Your task to perform on an android device: Search for "logitech g910" on walmart.com, select the first entry, add it to the cart, then select checkout. Image 0: 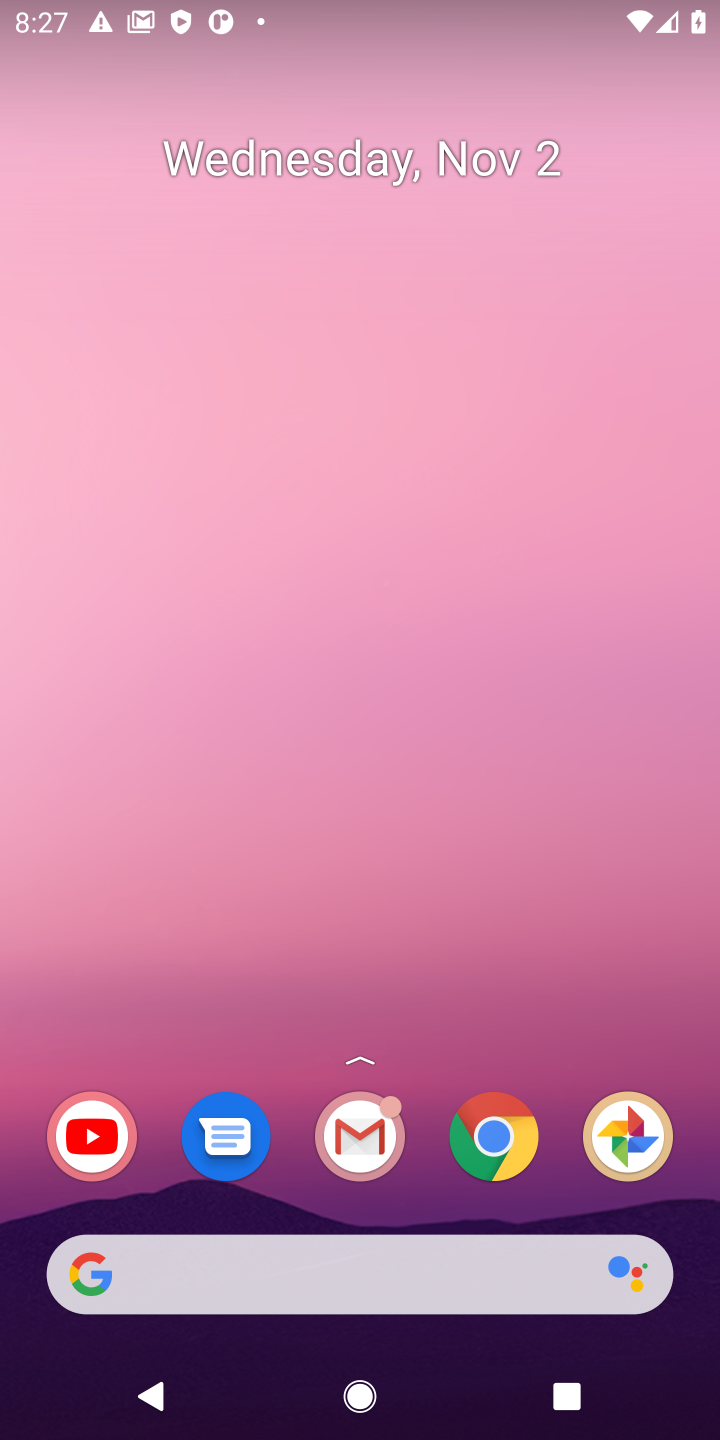
Step 0: drag from (409, 1292) to (373, 189)
Your task to perform on an android device: Search for "logitech g910" on walmart.com, select the first entry, add it to the cart, then select checkout. Image 1: 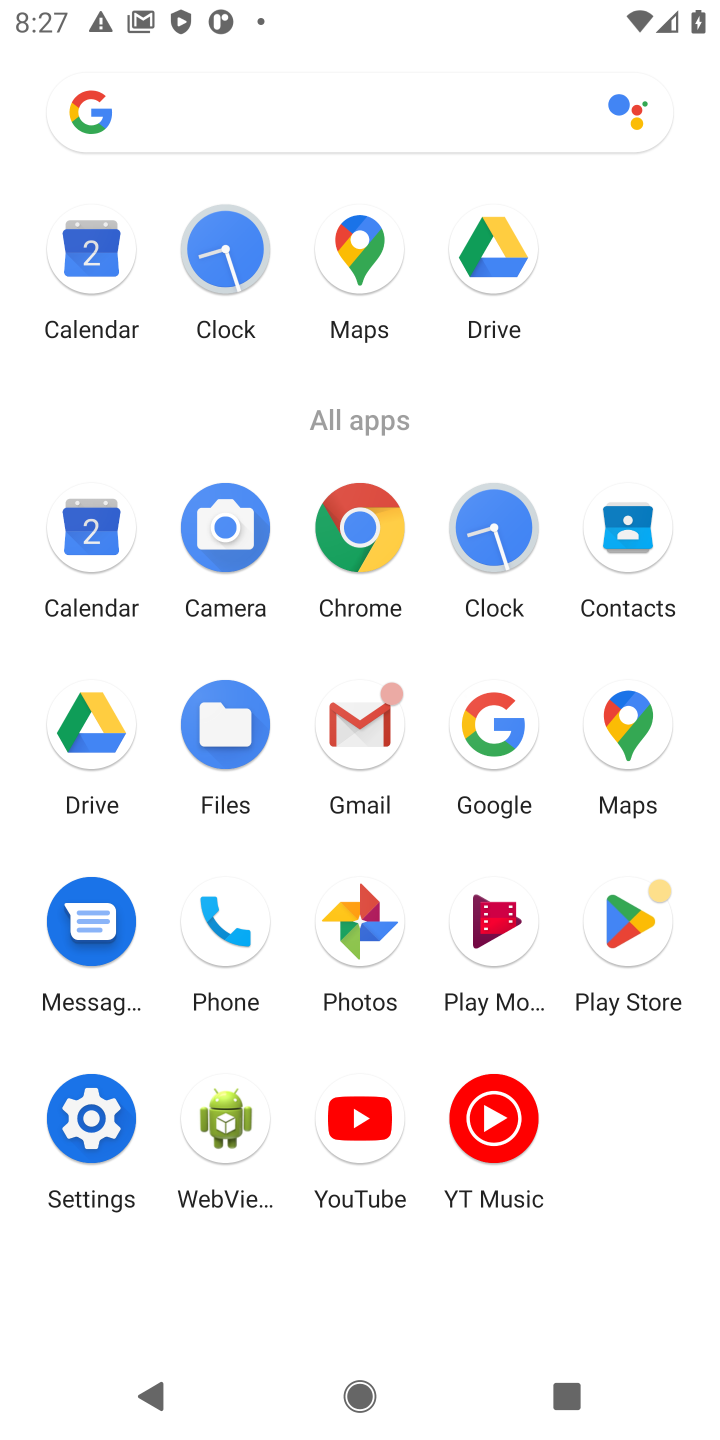
Step 1: click (470, 729)
Your task to perform on an android device: Search for "logitech g910" on walmart.com, select the first entry, add it to the cart, then select checkout. Image 2: 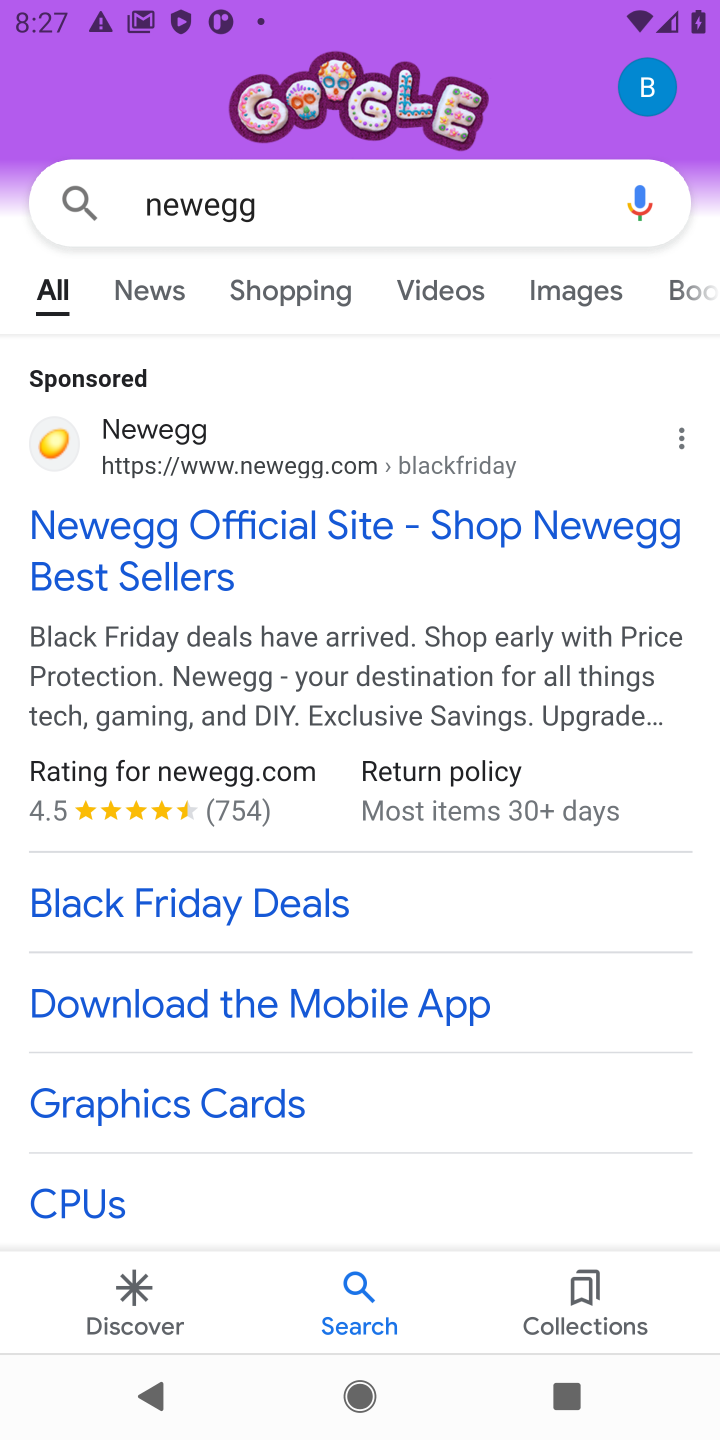
Step 2: click (269, 196)
Your task to perform on an android device: Search for "logitech g910" on walmart.com, select the first entry, add it to the cart, then select checkout. Image 3: 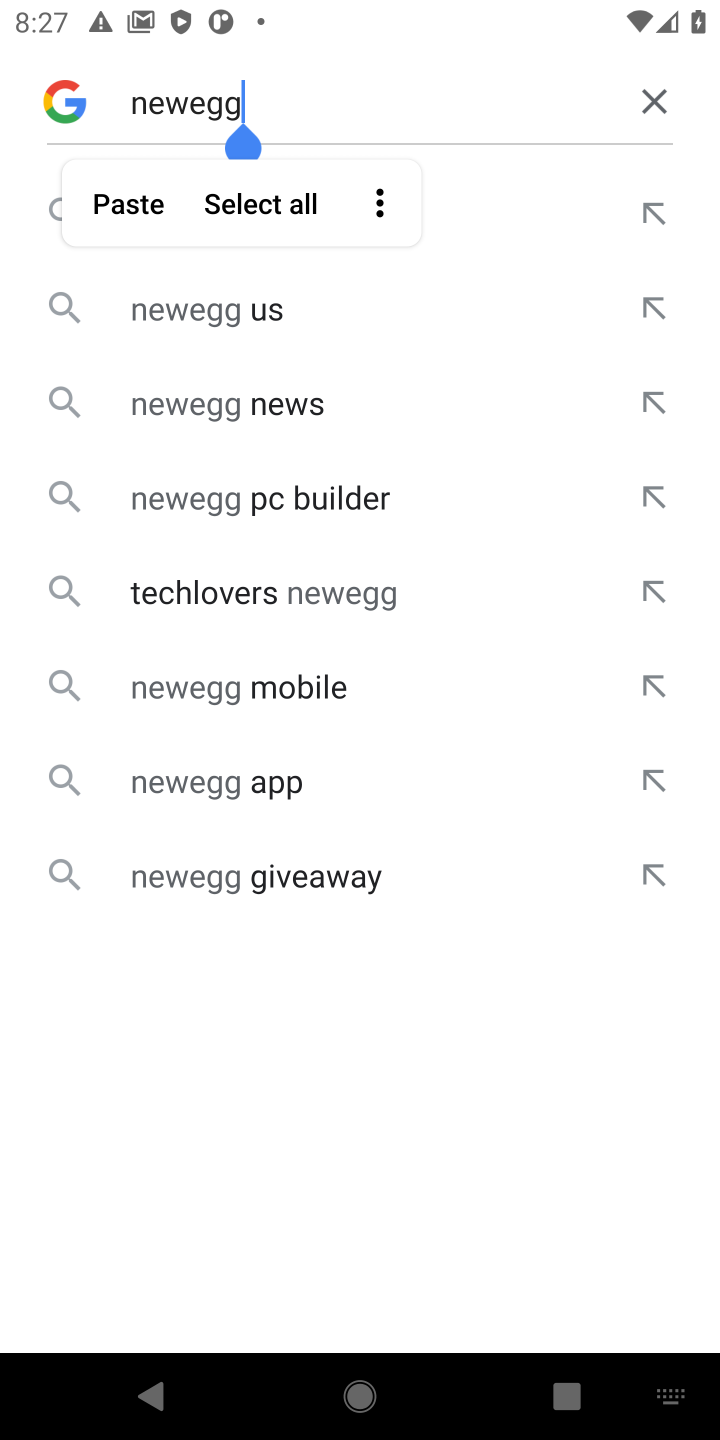
Step 3: click (647, 103)
Your task to perform on an android device: Search for "logitech g910" on walmart.com, select the first entry, add it to the cart, then select checkout. Image 4: 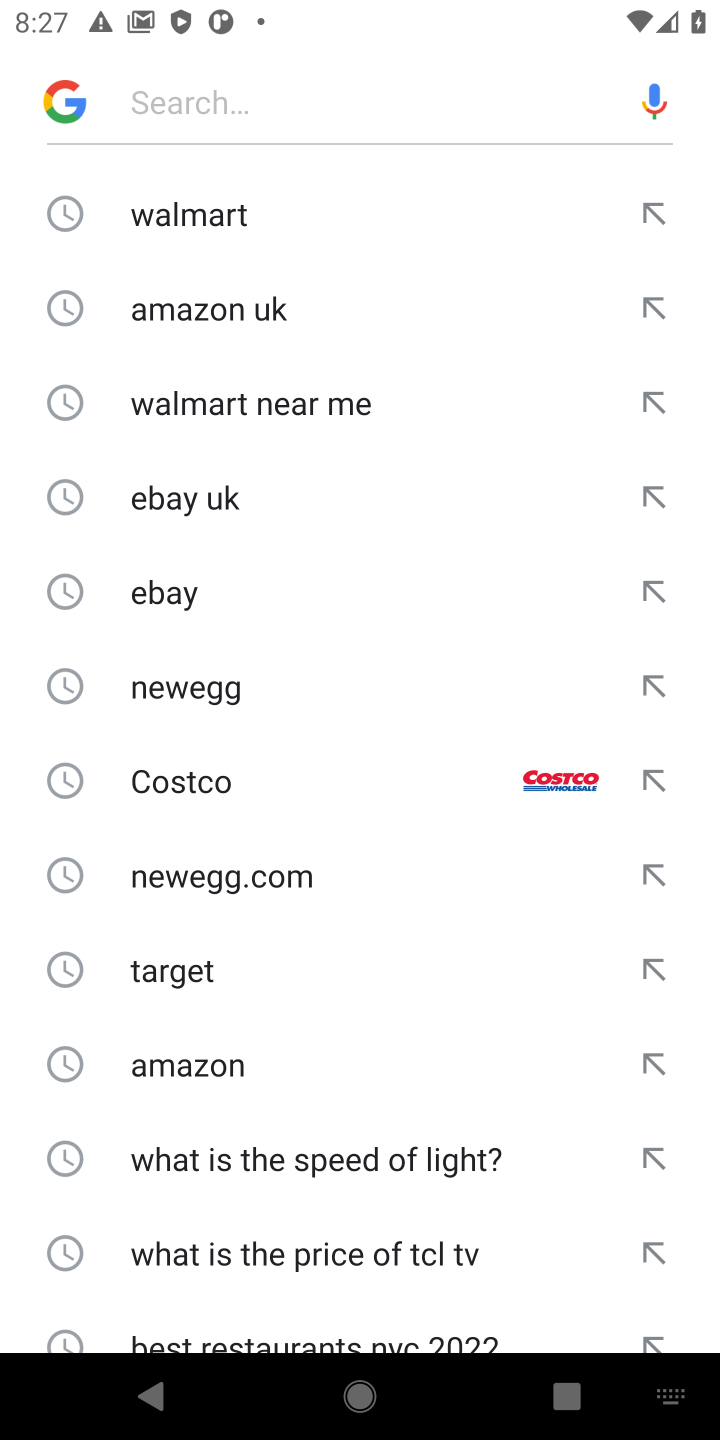
Step 4: click (163, 199)
Your task to perform on an android device: Search for "logitech g910" on walmart.com, select the first entry, add it to the cart, then select checkout. Image 5: 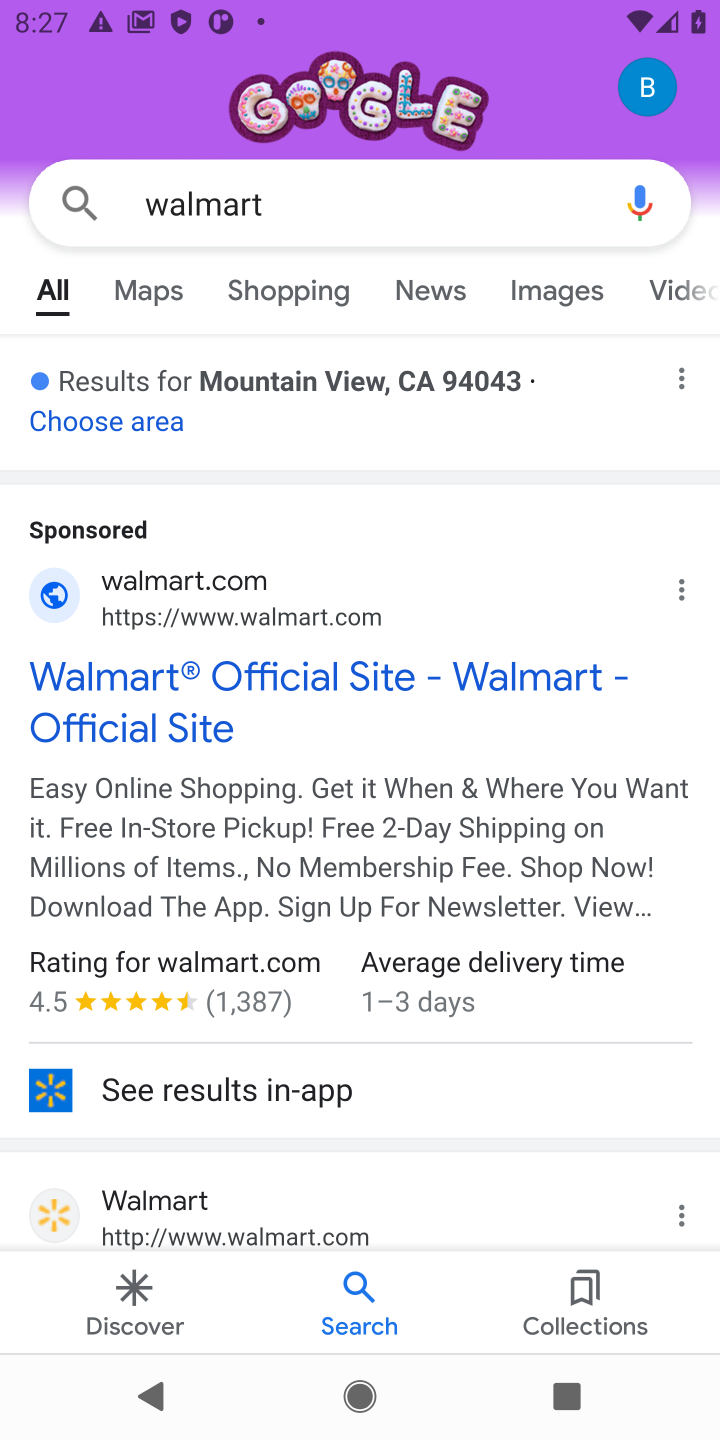
Step 5: click (56, 1213)
Your task to perform on an android device: Search for "logitech g910" on walmart.com, select the first entry, add it to the cart, then select checkout. Image 6: 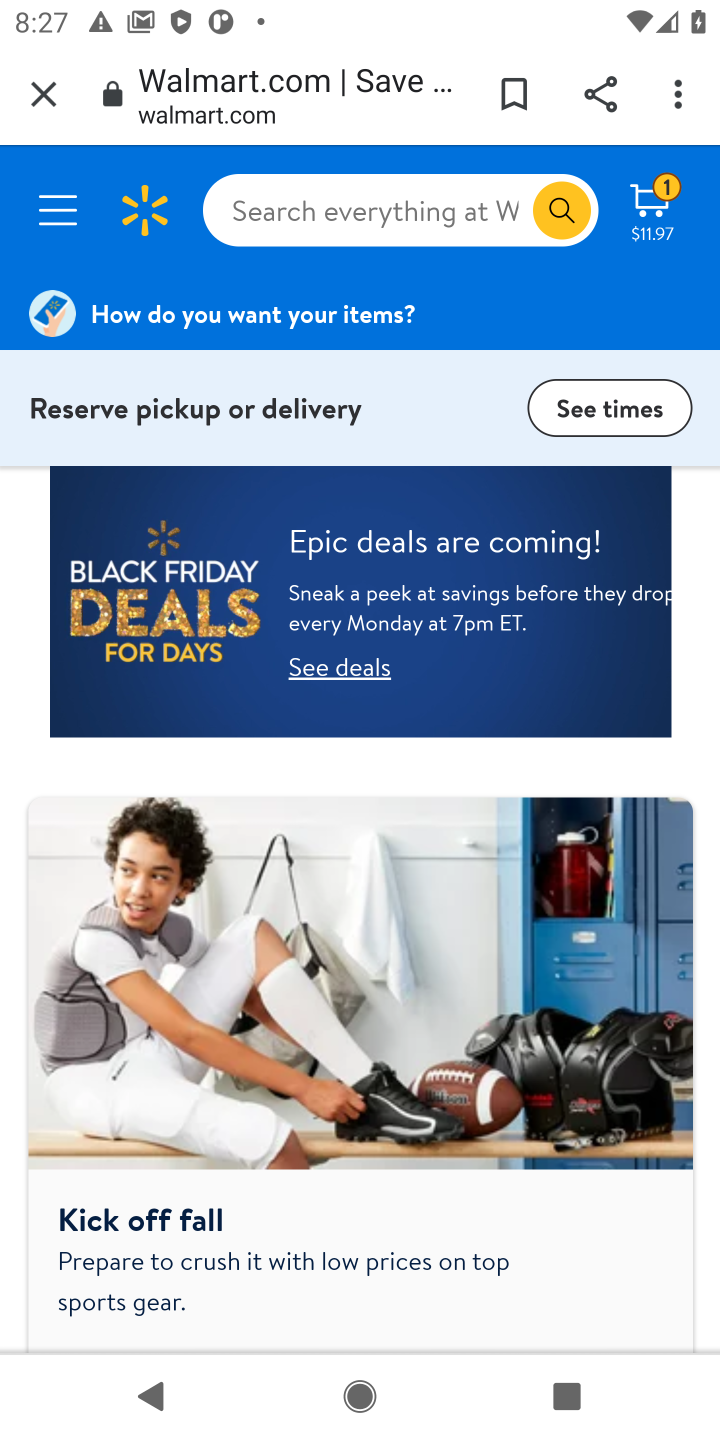
Step 6: click (385, 191)
Your task to perform on an android device: Search for "logitech g910" on walmart.com, select the first entry, add it to the cart, then select checkout. Image 7: 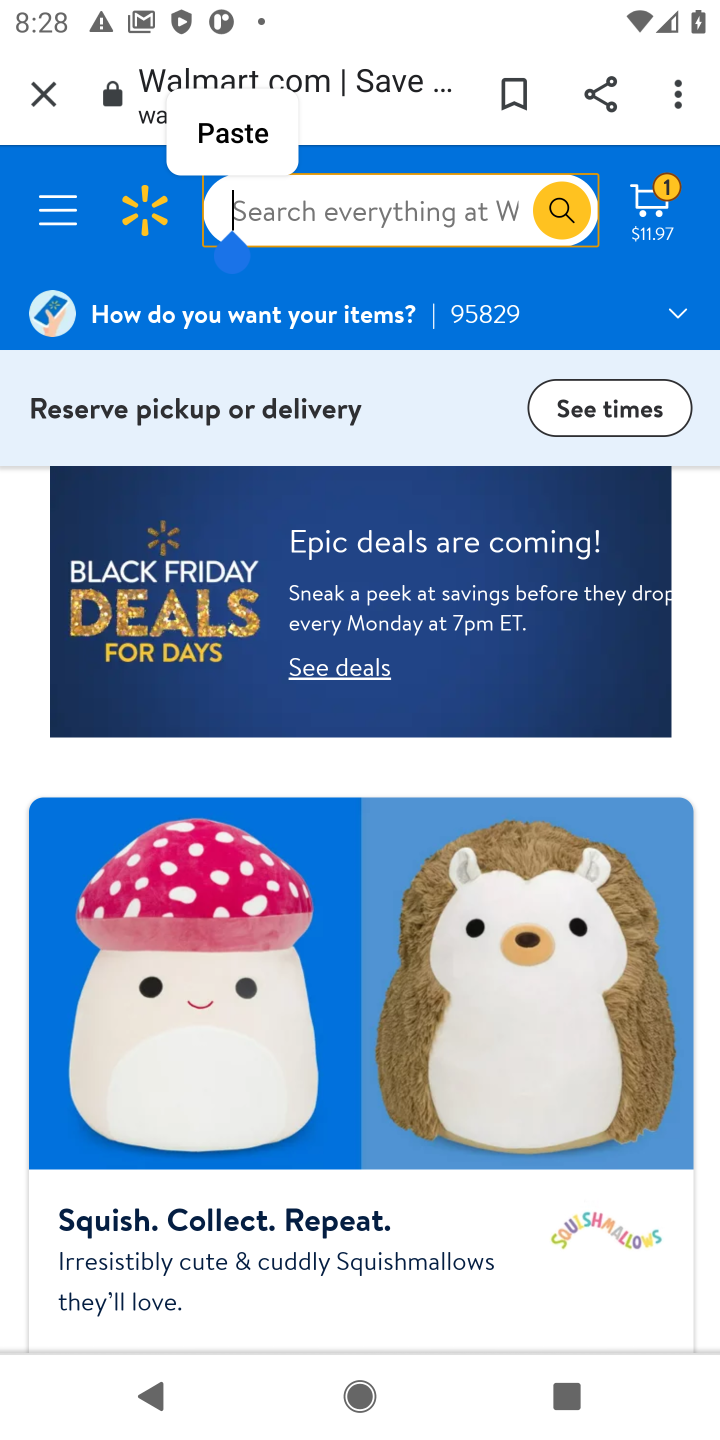
Step 7: click (379, 214)
Your task to perform on an android device: Search for "logitech g910" on walmart.com, select the first entry, add it to the cart, then select checkout. Image 8: 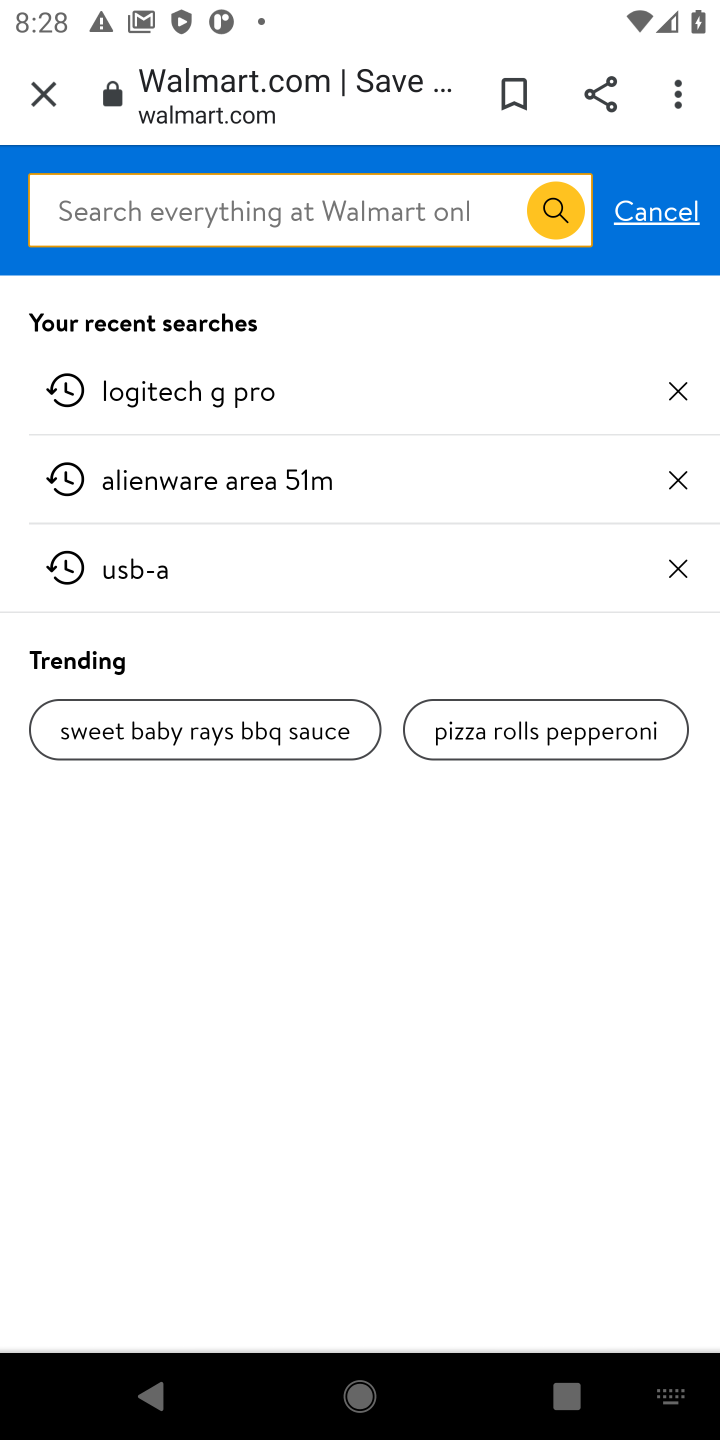
Step 8: type ""logitech g910 "
Your task to perform on an android device: Search for "logitech g910" on walmart.com, select the first entry, add it to the cart, then select checkout. Image 9: 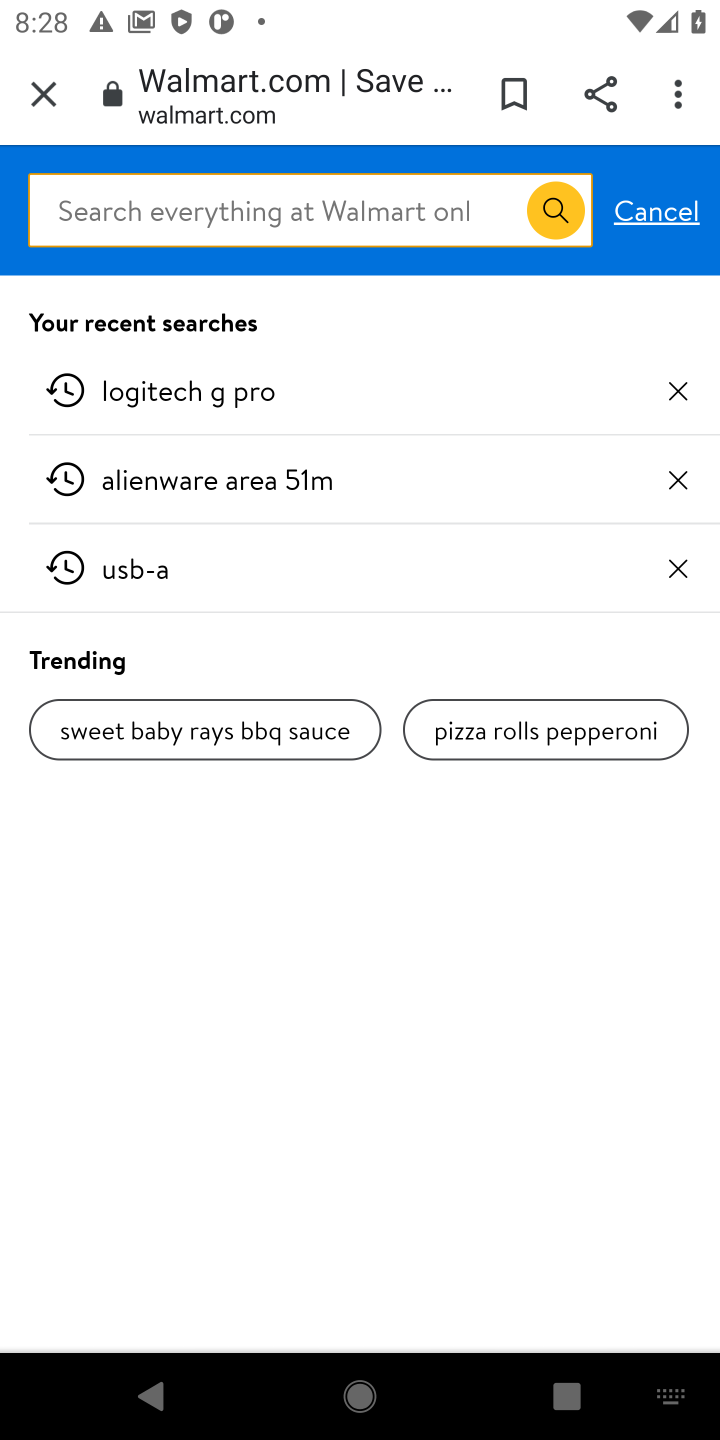
Step 9: click (236, 388)
Your task to perform on an android device: Search for "logitech g910" on walmart.com, select the first entry, add it to the cart, then select checkout. Image 10: 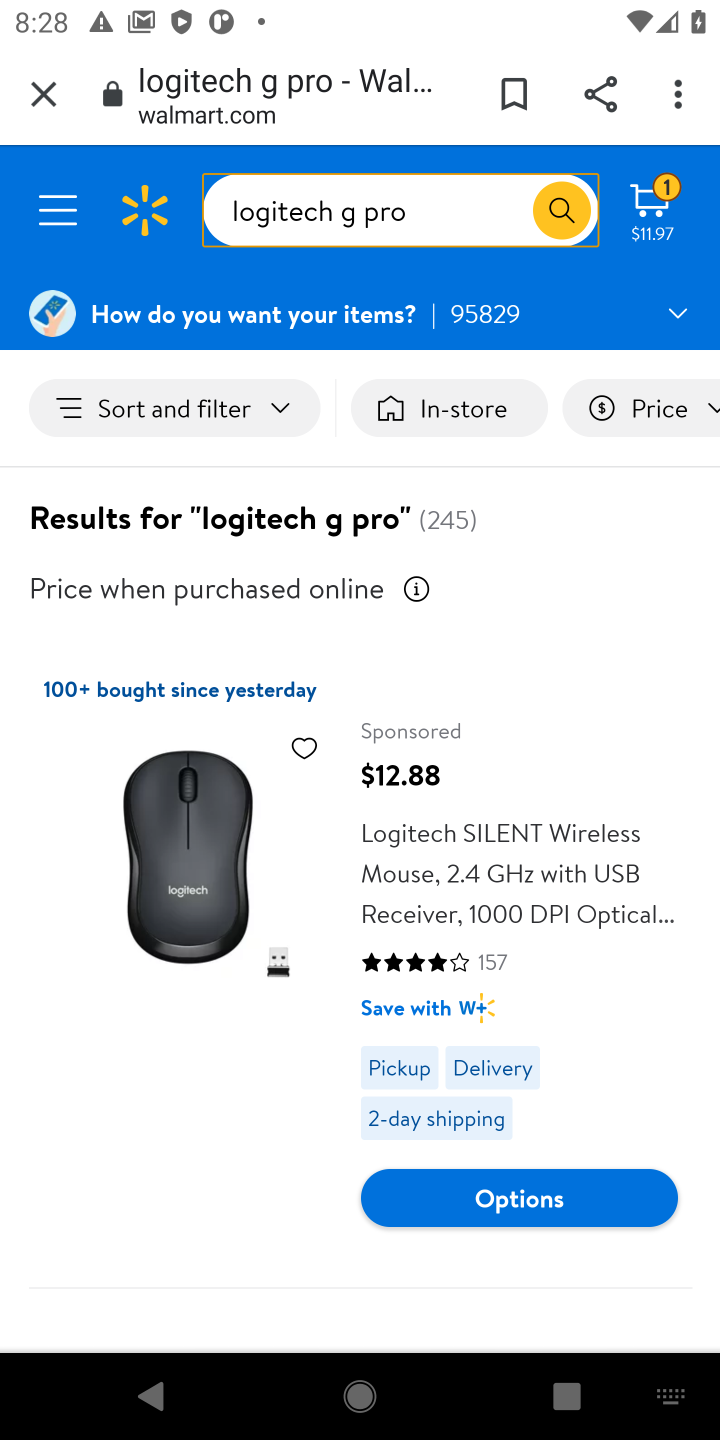
Step 10: click (563, 204)
Your task to perform on an android device: Search for "logitech g910" on walmart.com, select the first entry, add it to the cart, then select checkout. Image 11: 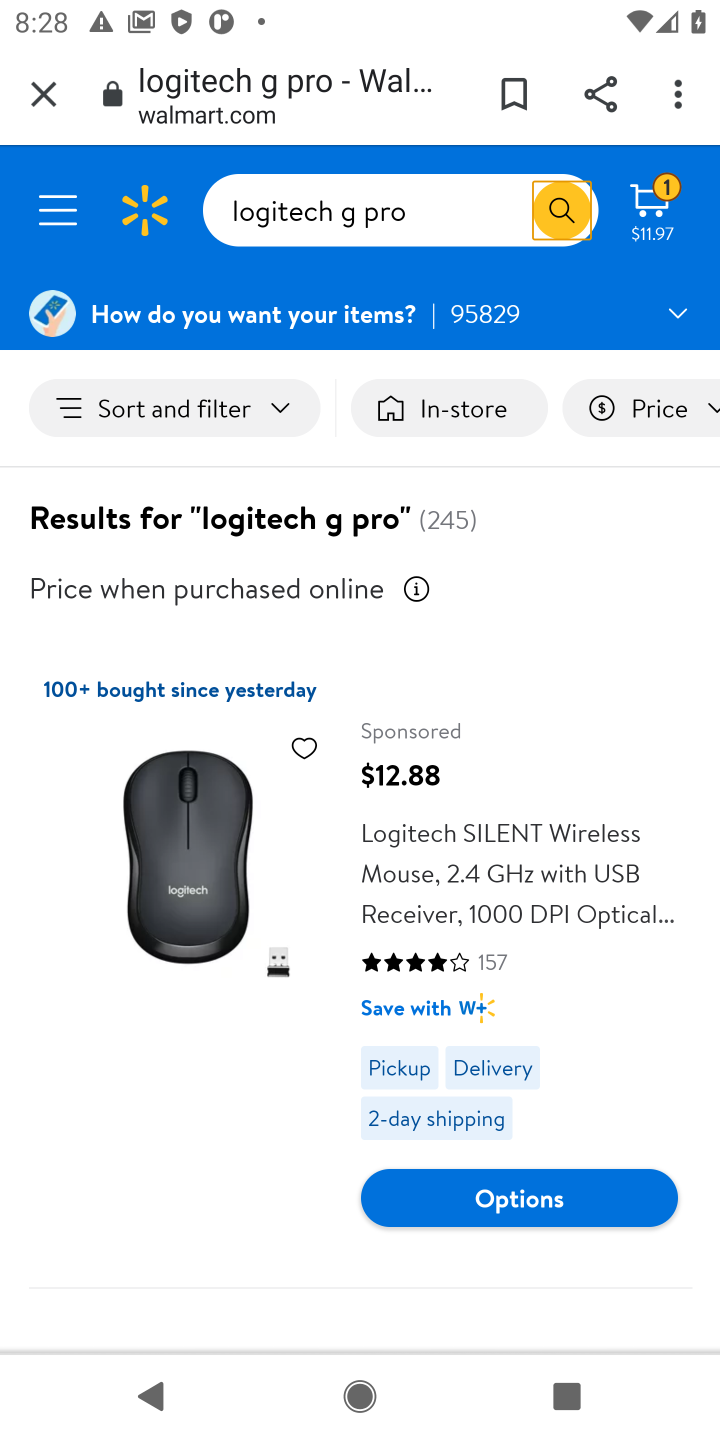
Step 11: click (418, 194)
Your task to perform on an android device: Search for "logitech g910" on walmart.com, select the first entry, add it to the cart, then select checkout. Image 12: 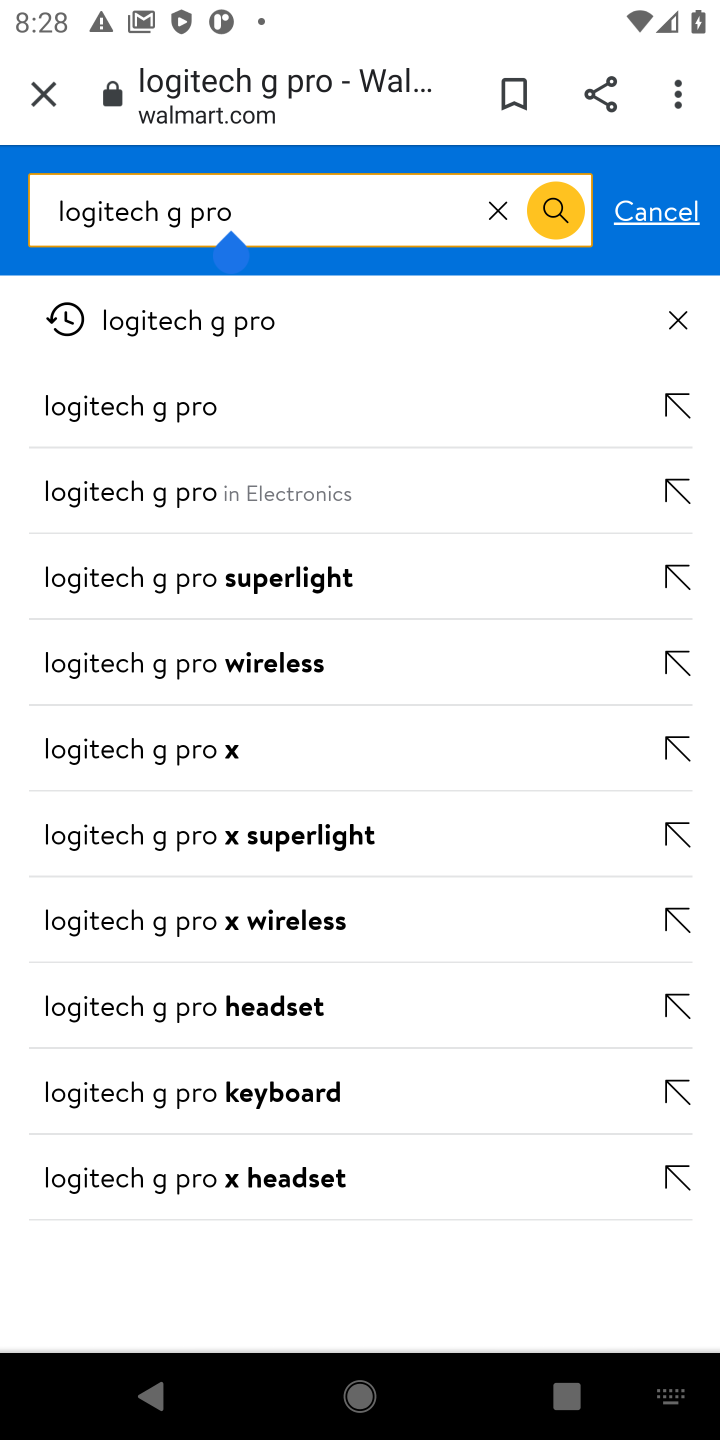
Step 12: click (492, 207)
Your task to perform on an android device: Search for "logitech g910" on walmart.com, select the first entry, add it to the cart, then select checkout. Image 13: 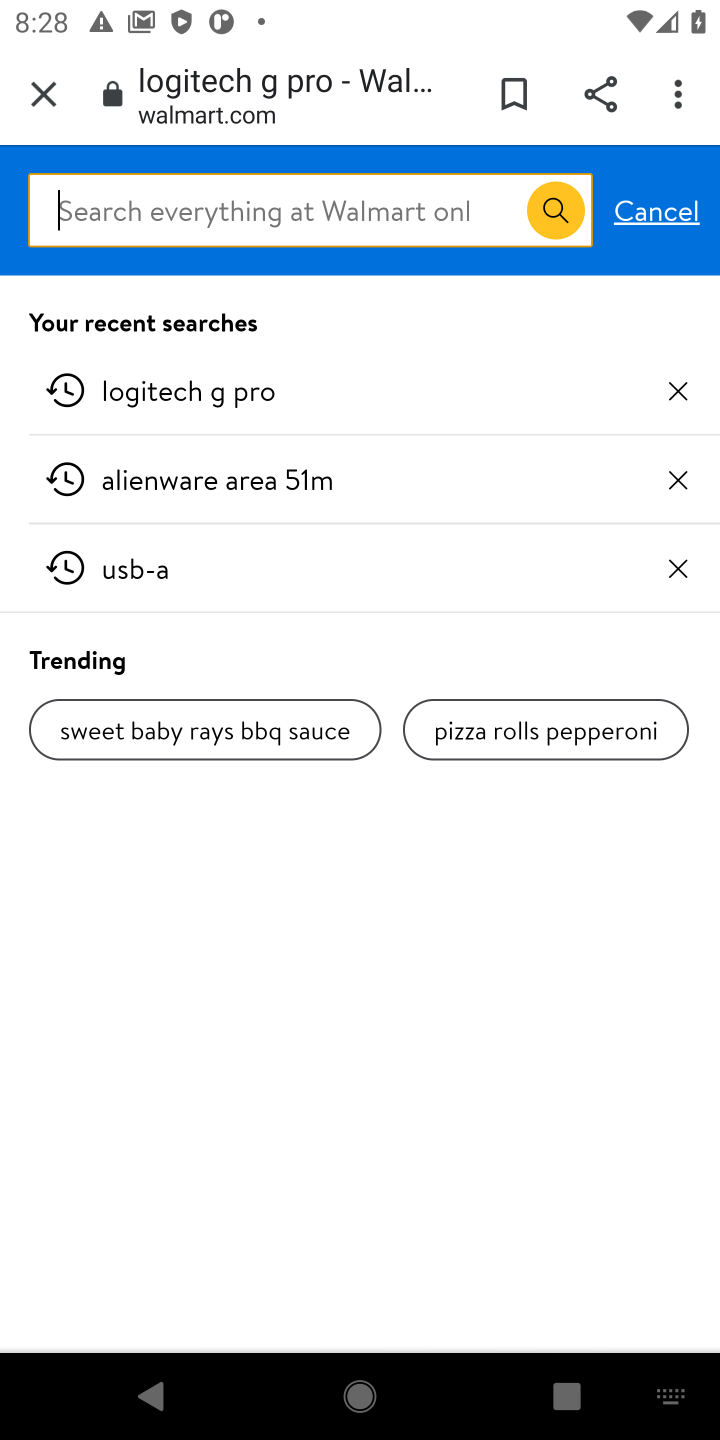
Step 13: click (365, 195)
Your task to perform on an android device: Search for "logitech g910" on walmart.com, select the first entry, add it to the cart, then select checkout. Image 14: 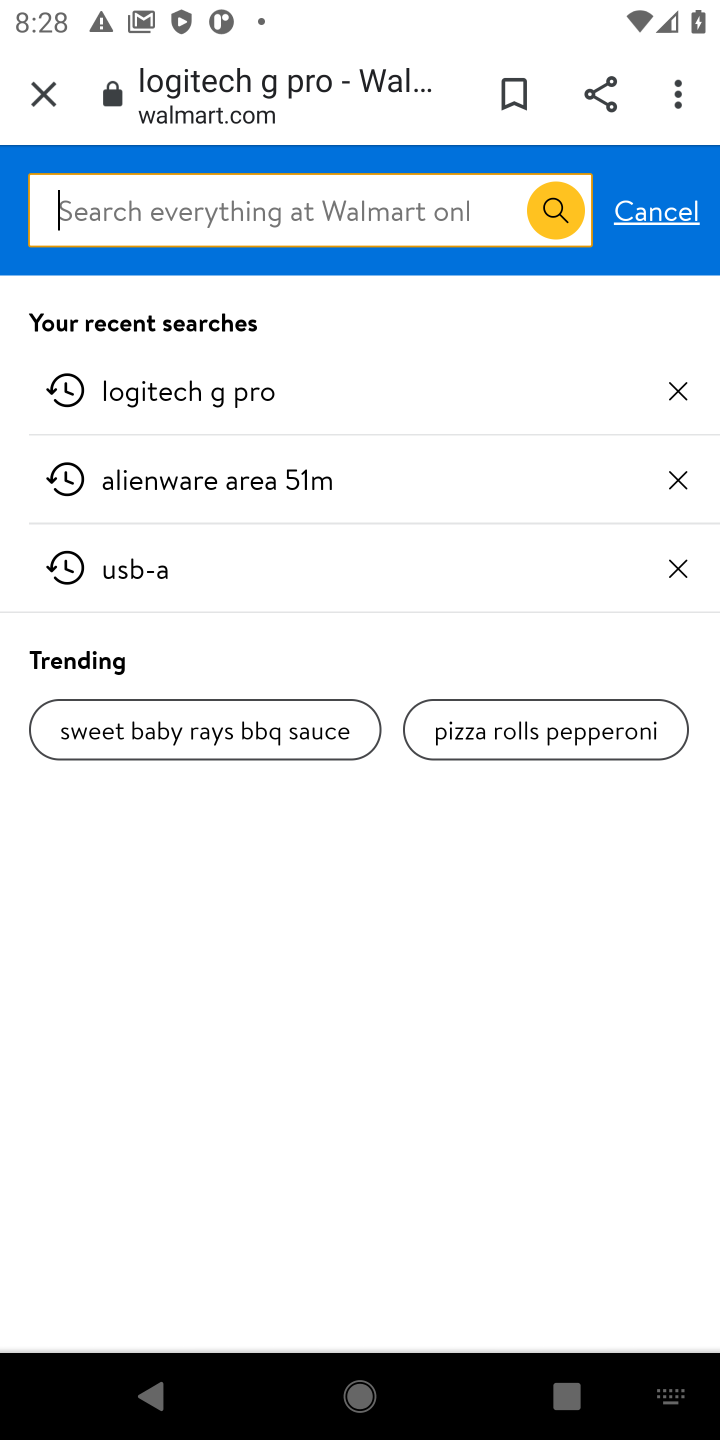
Step 14: type "logitech g910 "
Your task to perform on an android device: Search for "logitech g910" on walmart.com, select the first entry, add it to the cart, then select checkout. Image 15: 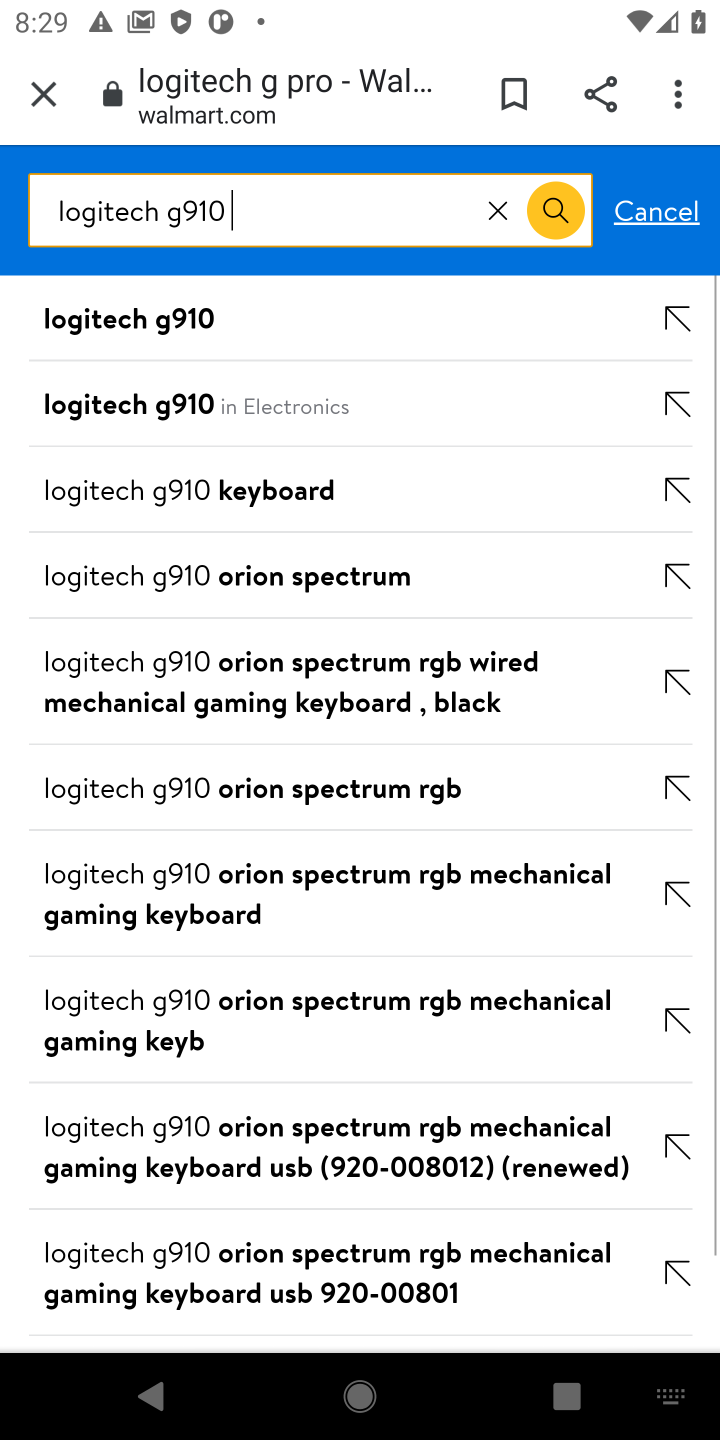
Step 15: click (97, 300)
Your task to perform on an android device: Search for "logitech g910" on walmart.com, select the first entry, add it to the cart, then select checkout. Image 16: 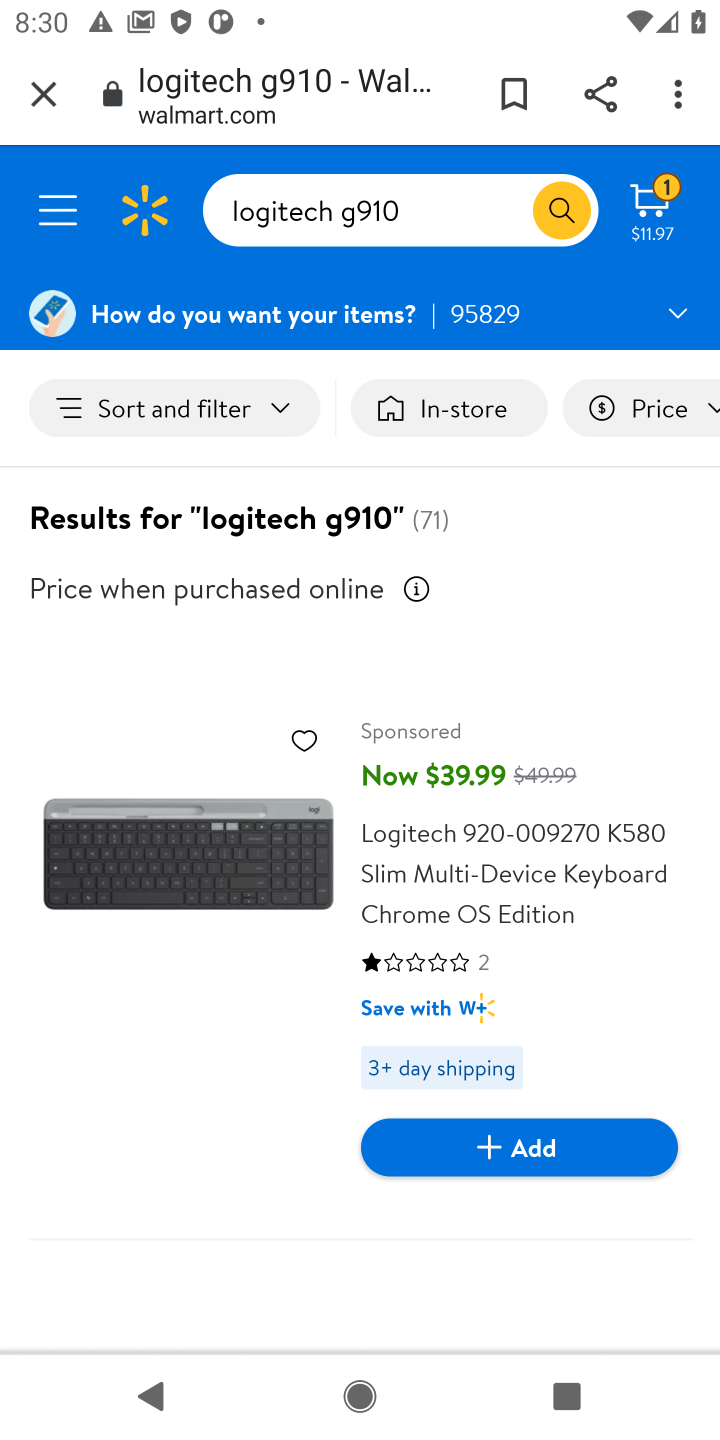
Step 16: click (438, 1166)
Your task to perform on an android device: Search for "logitech g910" on walmart.com, select the first entry, add it to the cart, then select checkout. Image 17: 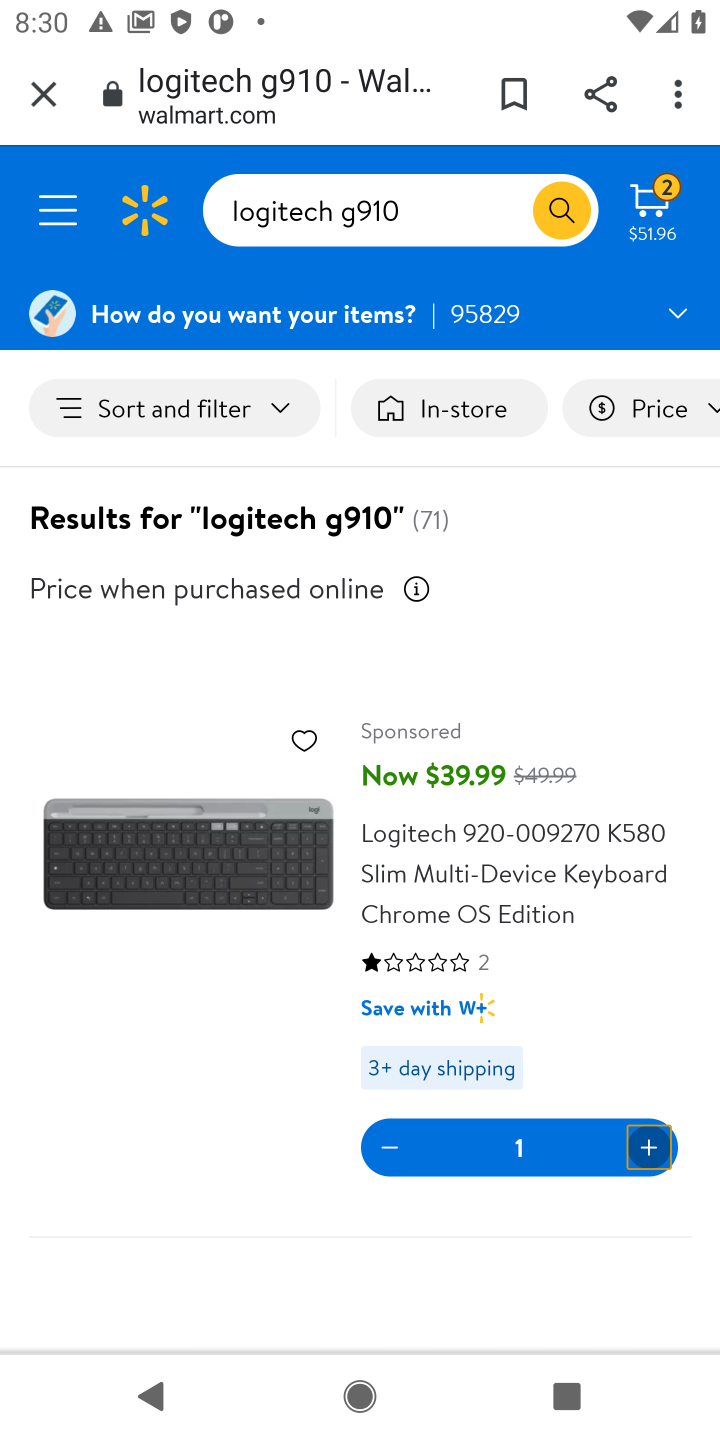
Step 17: task complete